Your task to perform on an android device: install app "DoorDash - Dasher" Image 0: 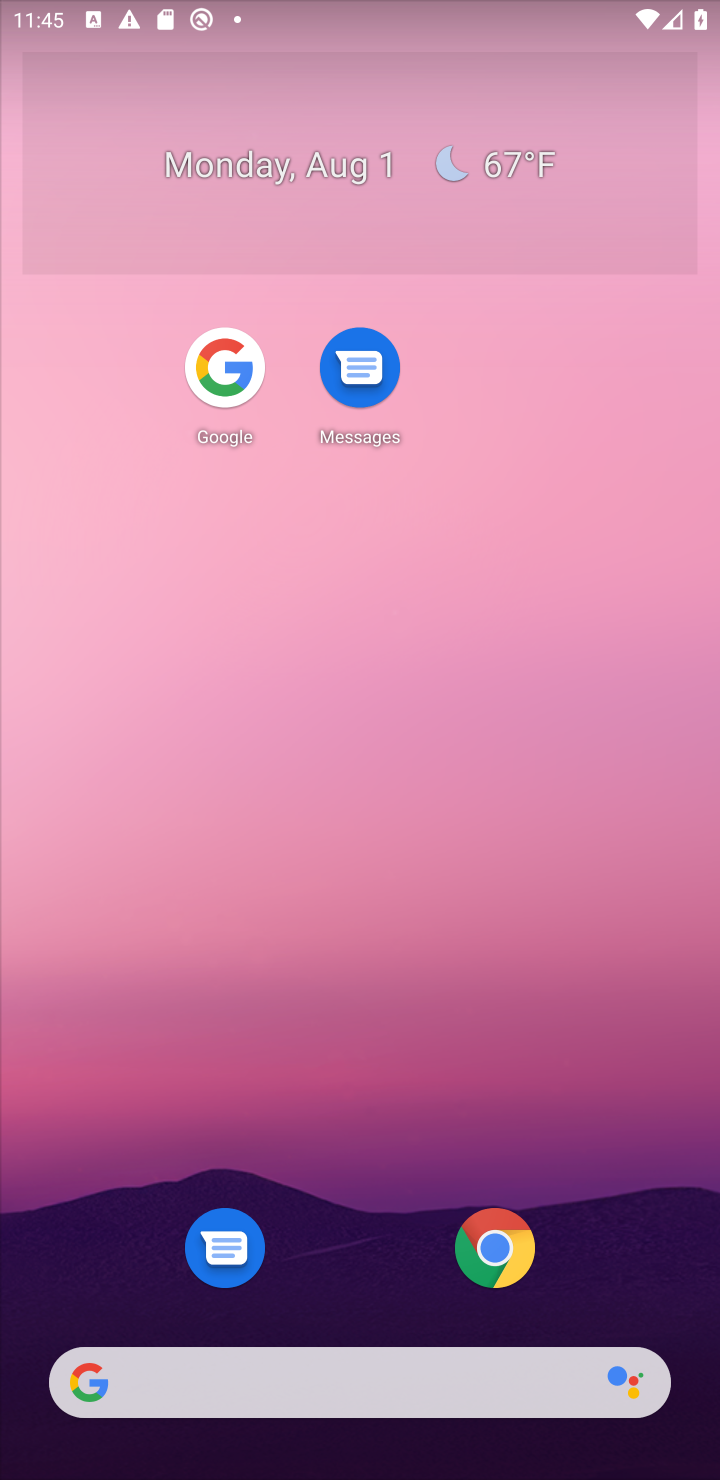
Step 0: drag from (658, 1115) to (609, 311)
Your task to perform on an android device: install app "DoorDash - Dasher" Image 1: 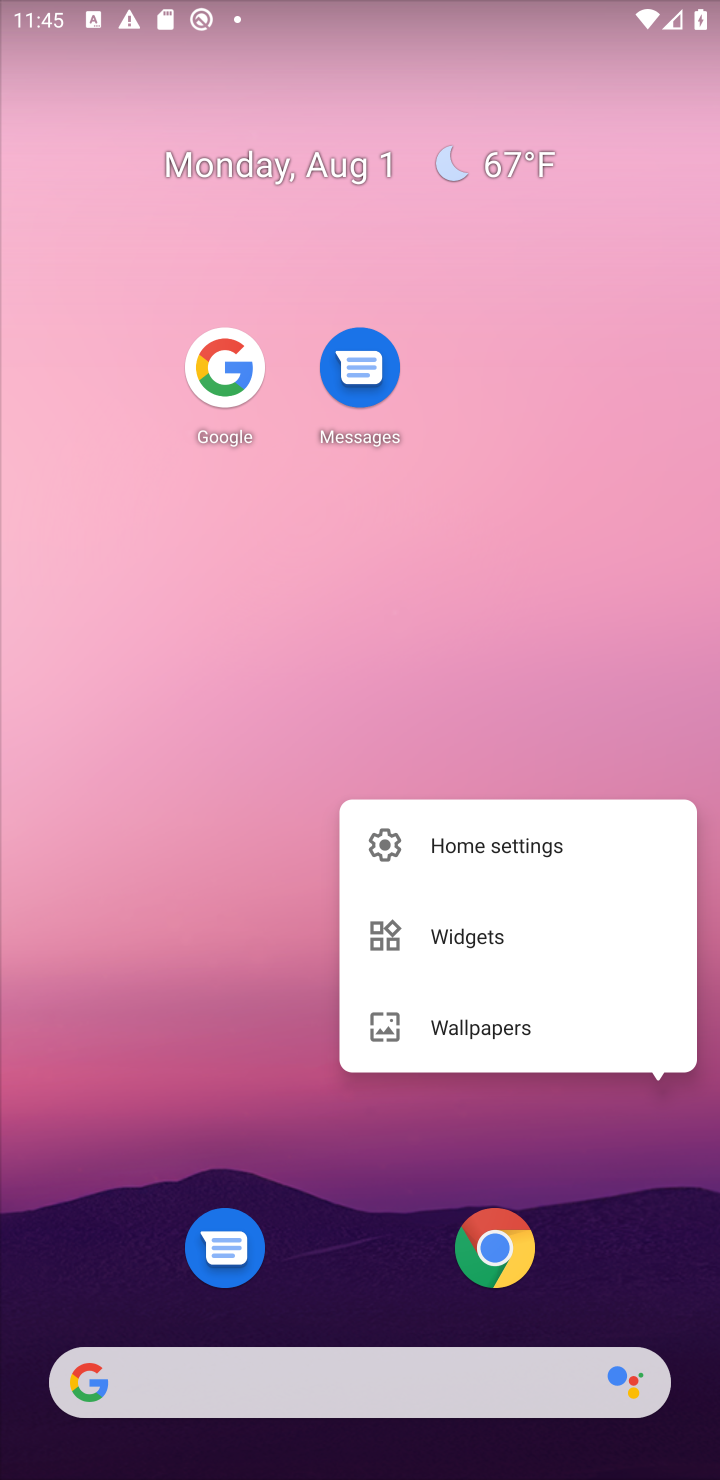
Step 1: click (555, 606)
Your task to perform on an android device: install app "DoorDash - Dasher" Image 2: 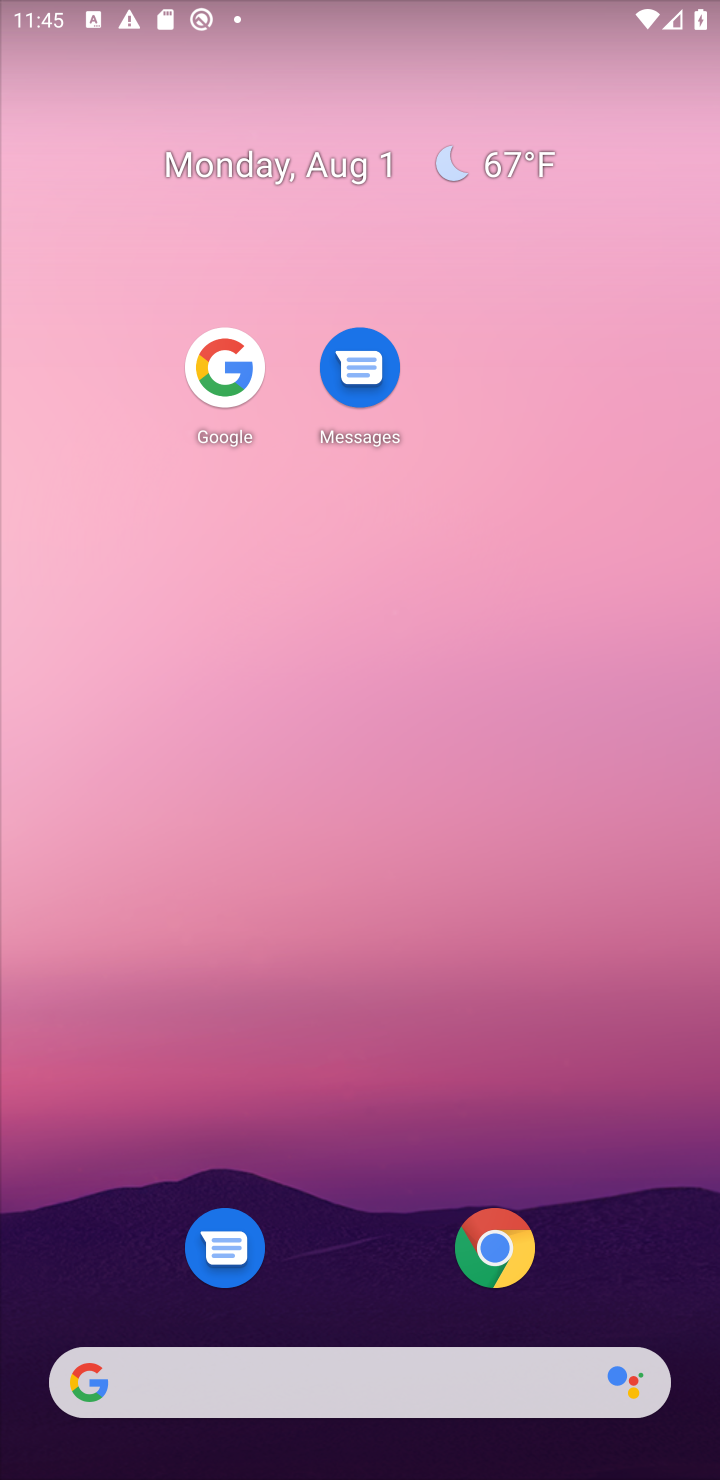
Step 2: drag from (636, 1153) to (629, 280)
Your task to perform on an android device: install app "DoorDash - Dasher" Image 3: 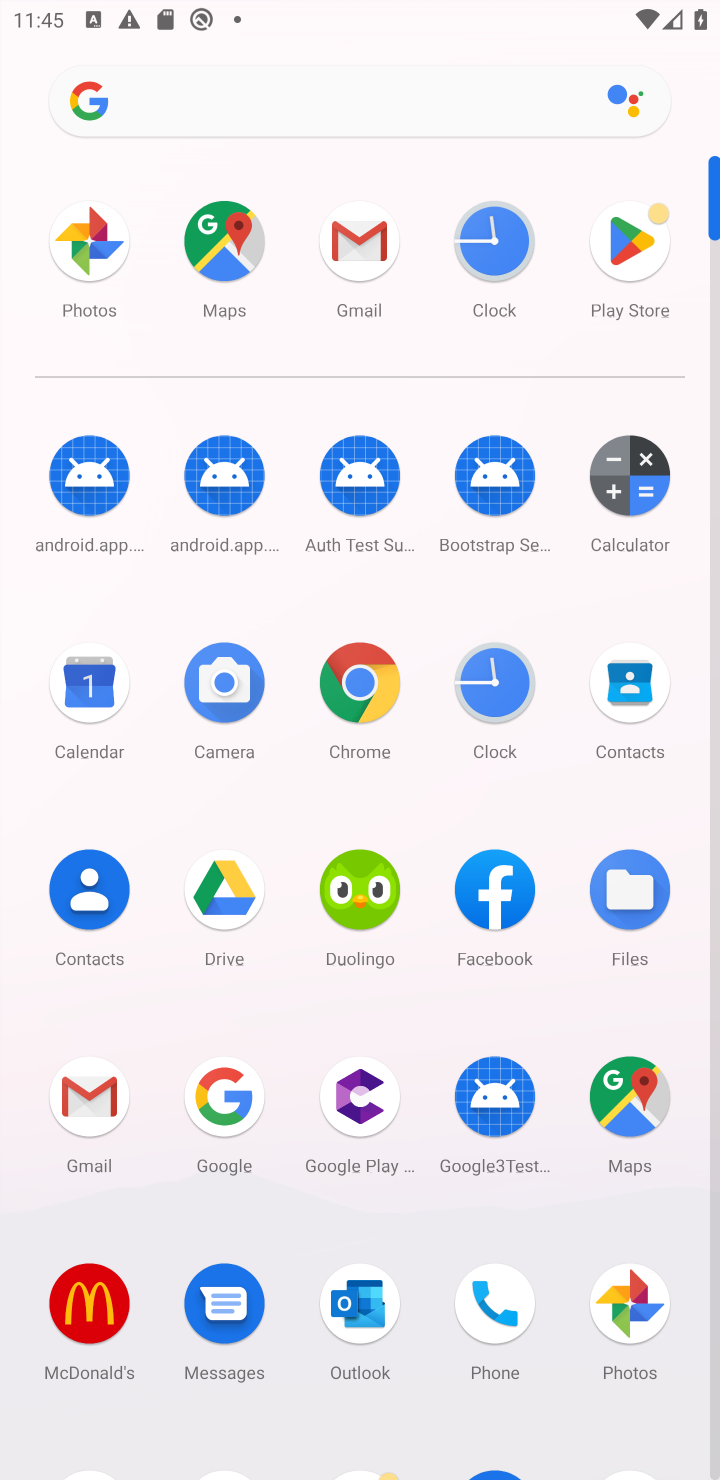
Step 3: drag from (411, 1213) to (395, 496)
Your task to perform on an android device: install app "DoorDash - Dasher" Image 4: 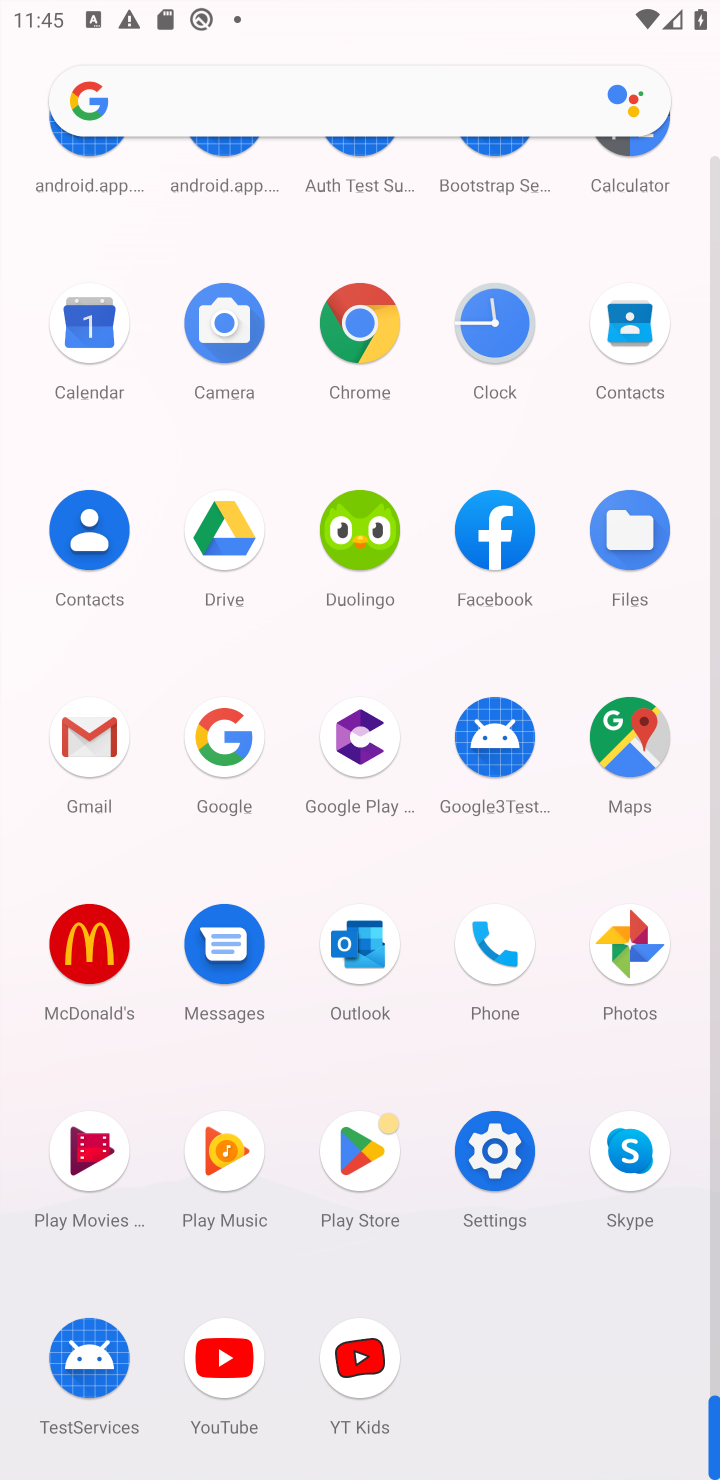
Step 4: click (356, 1141)
Your task to perform on an android device: install app "DoorDash - Dasher" Image 5: 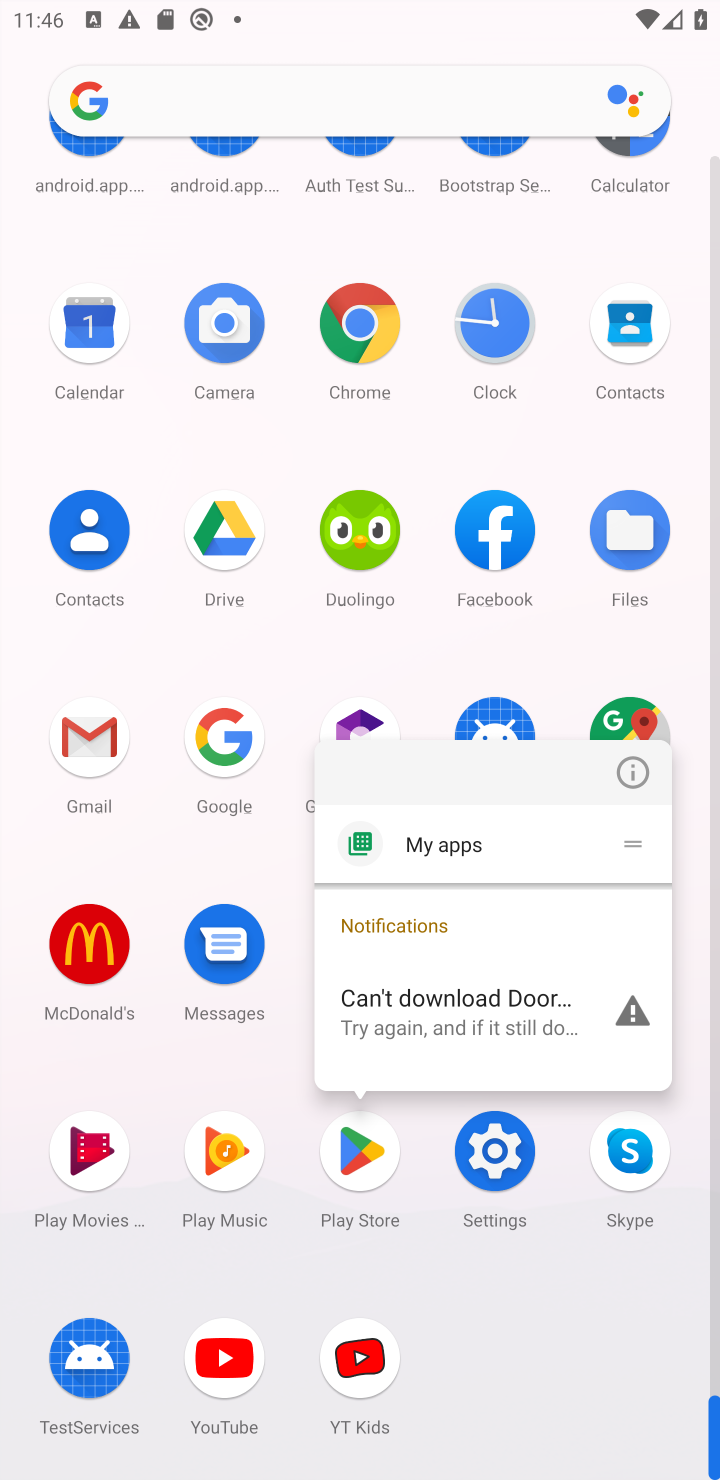
Step 5: click (362, 1156)
Your task to perform on an android device: install app "DoorDash - Dasher" Image 6: 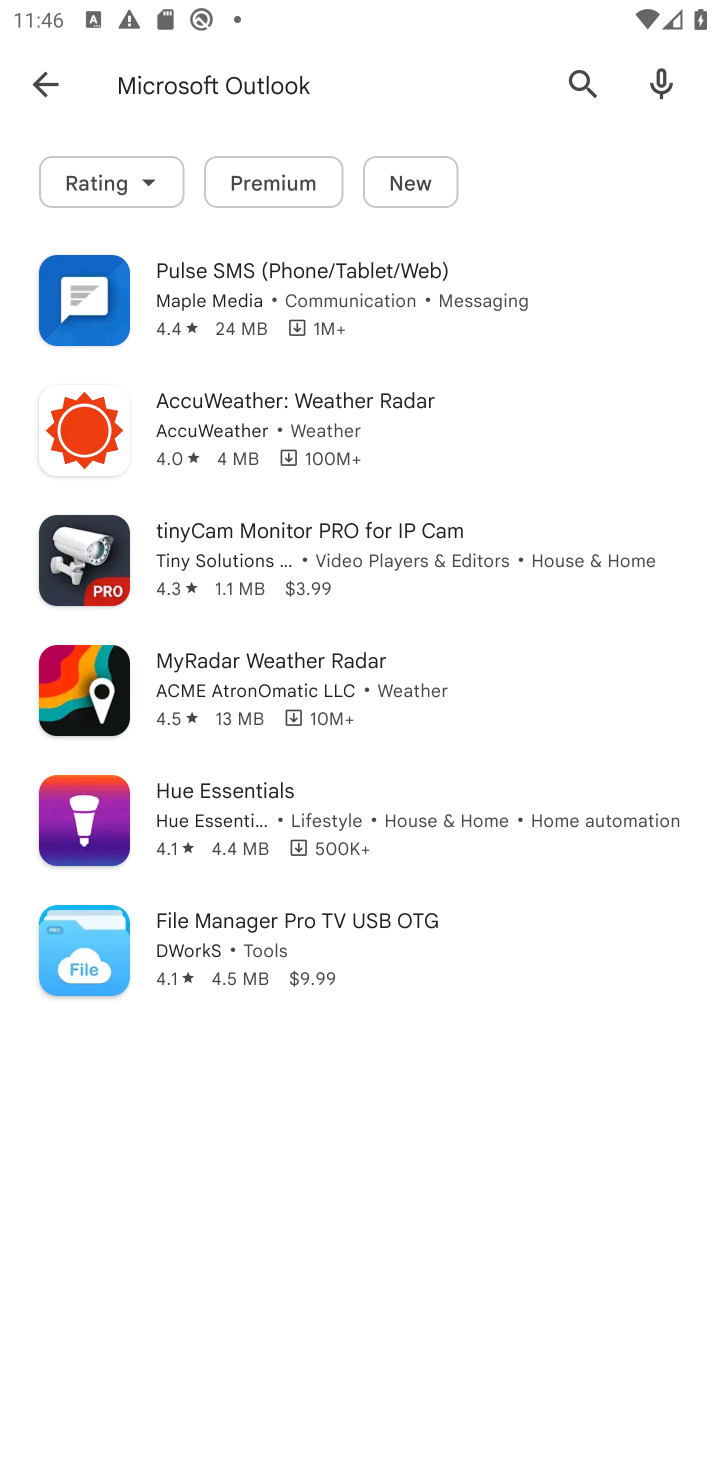
Step 6: click (445, 74)
Your task to perform on an android device: install app "DoorDash - Dasher" Image 7: 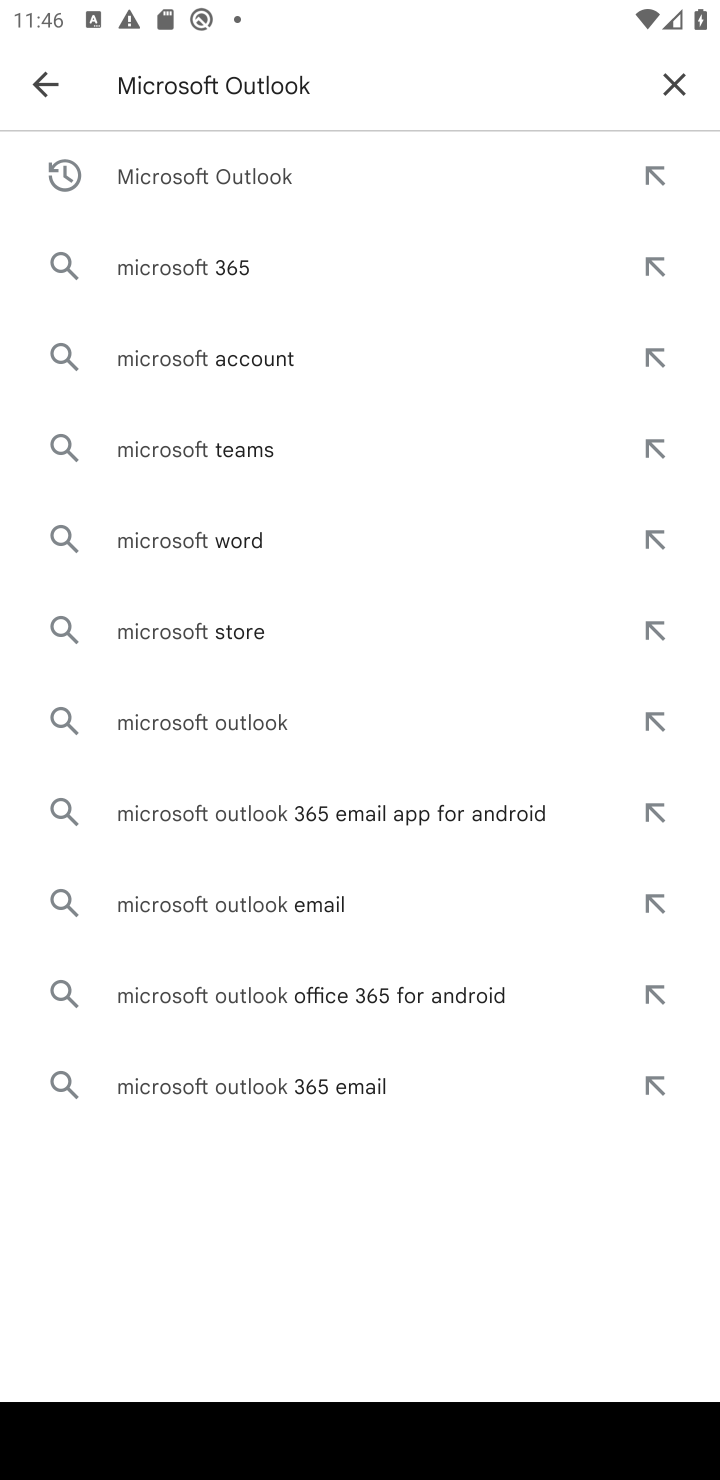
Step 7: click (676, 82)
Your task to perform on an android device: install app "DoorDash - Dasher" Image 8: 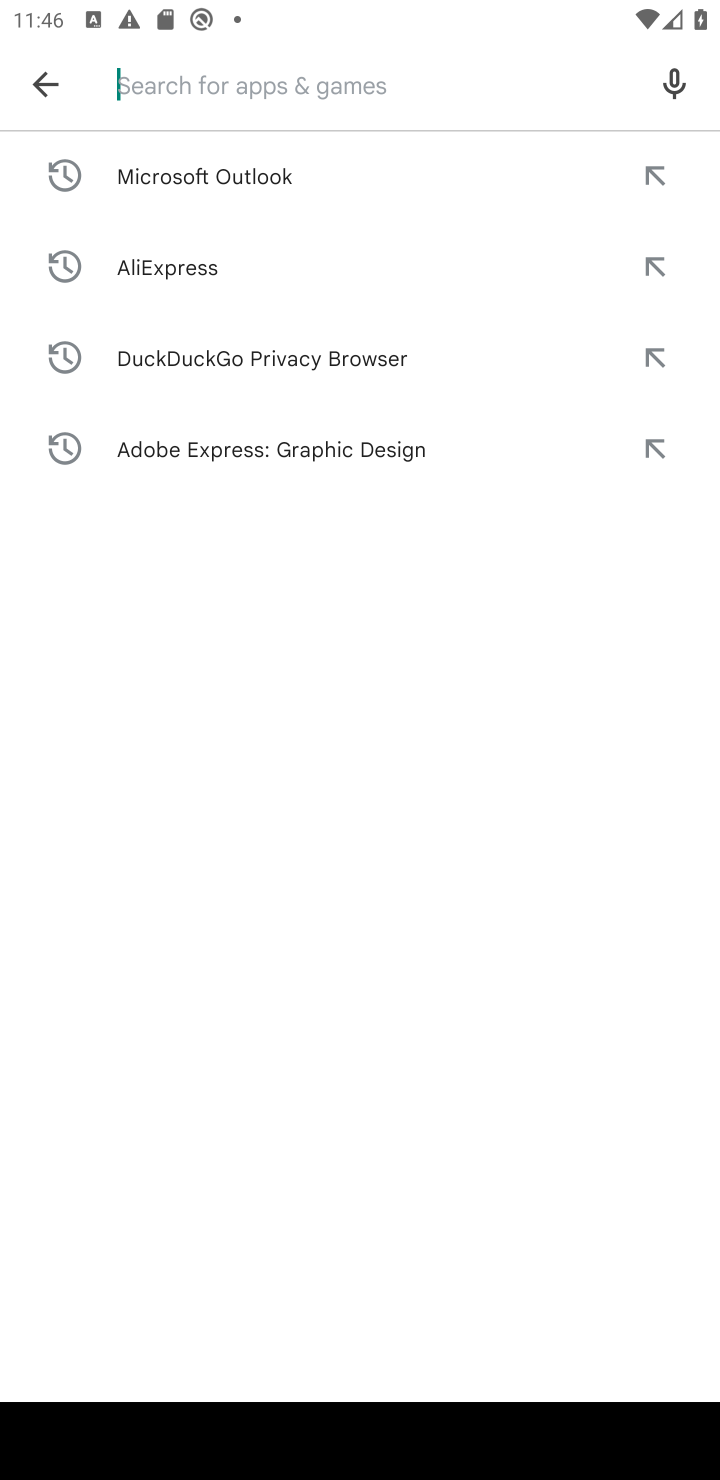
Step 8: type "DoorDash - Dasher"
Your task to perform on an android device: install app "DoorDash - Dasher" Image 9: 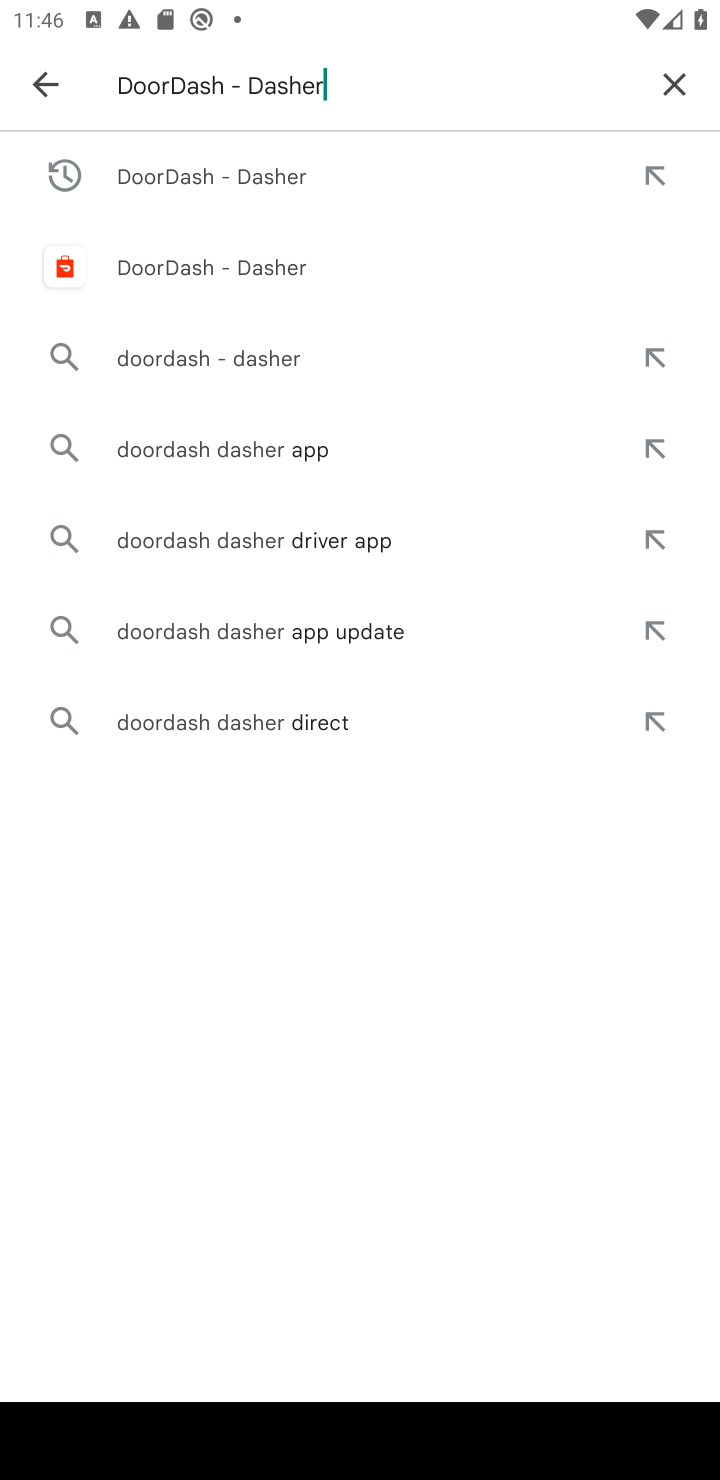
Step 9: press enter
Your task to perform on an android device: install app "DoorDash - Dasher" Image 10: 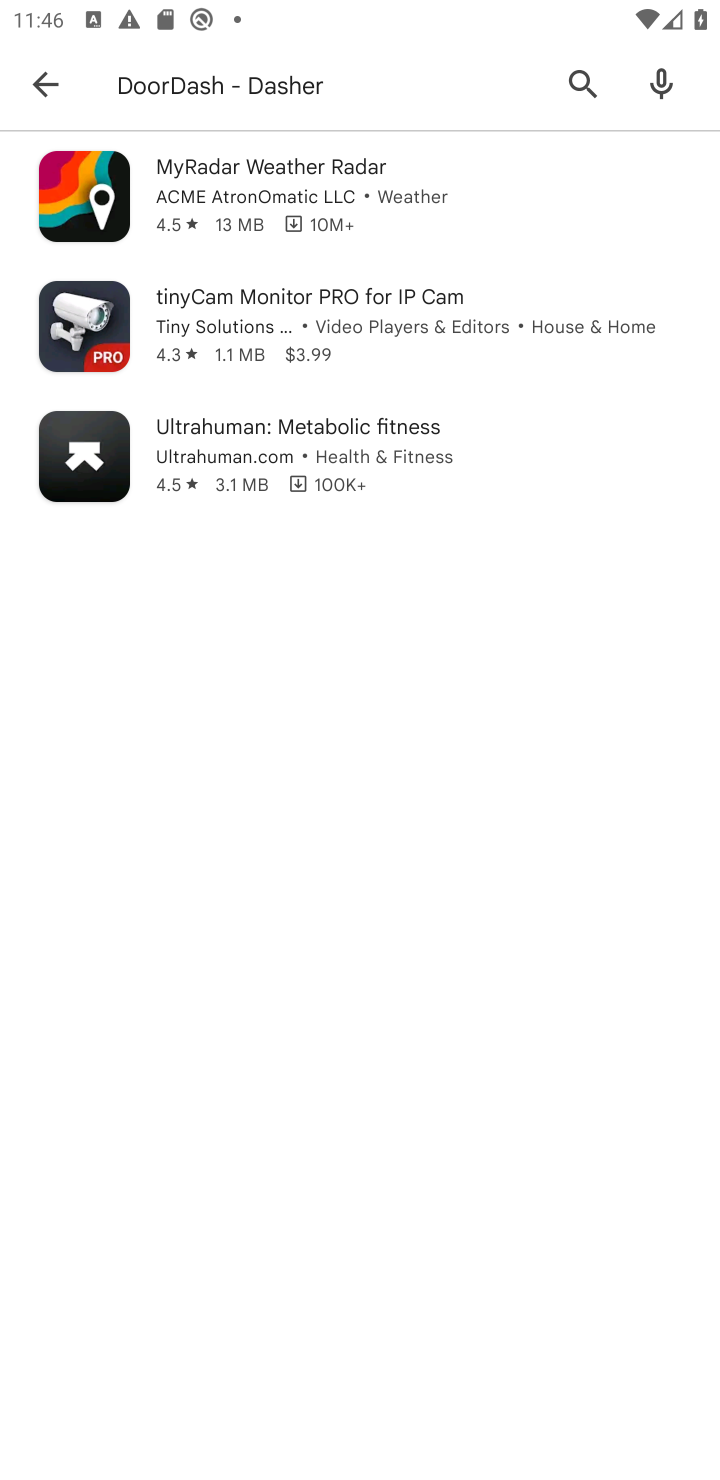
Step 10: task complete